Your task to perform on an android device: open chrome privacy settings Image 0: 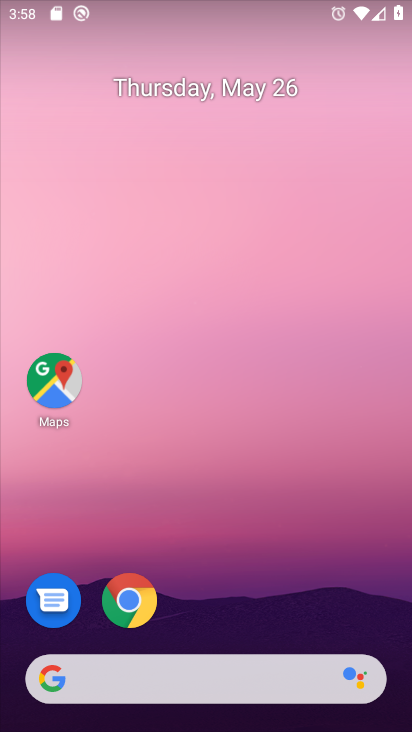
Step 0: click (134, 606)
Your task to perform on an android device: open chrome privacy settings Image 1: 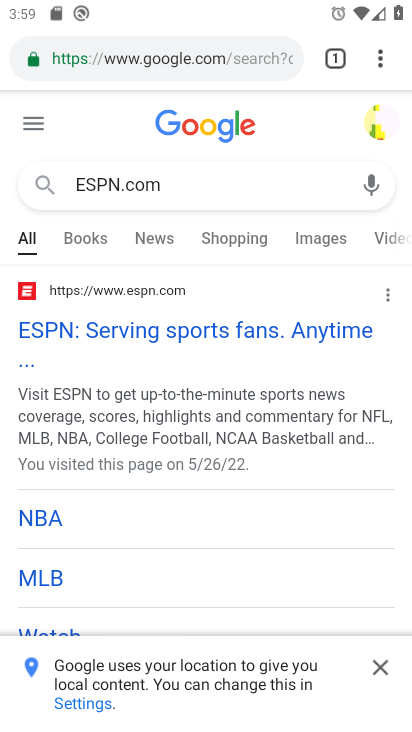
Step 1: click (380, 51)
Your task to perform on an android device: open chrome privacy settings Image 2: 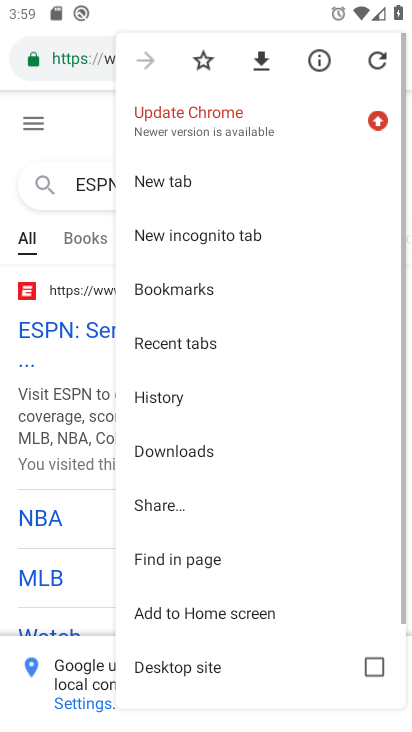
Step 2: drag from (177, 623) to (197, 411)
Your task to perform on an android device: open chrome privacy settings Image 3: 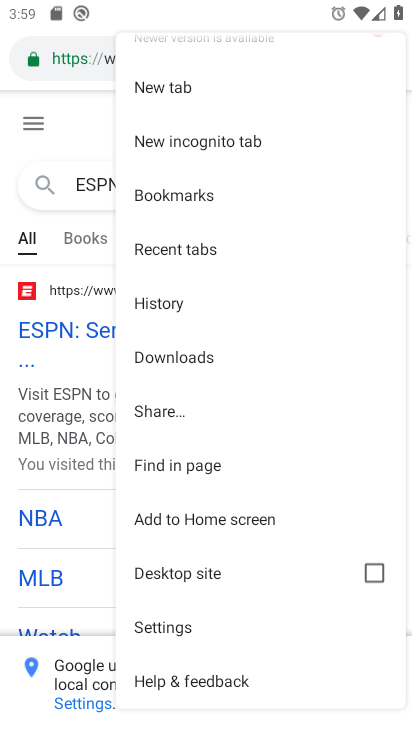
Step 3: click (167, 634)
Your task to perform on an android device: open chrome privacy settings Image 4: 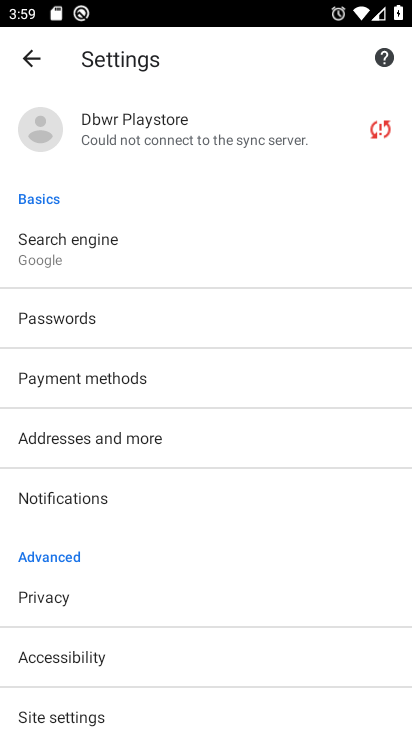
Step 4: drag from (136, 536) to (163, 298)
Your task to perform on an android device: open chrome privacy settings Image 5: 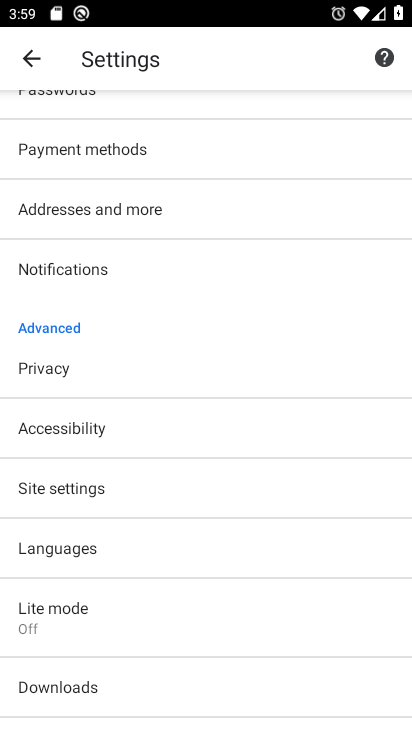
Step 5: click (42, 559)
Your task to perform on an android device: open chrome privacy settings Image 6: 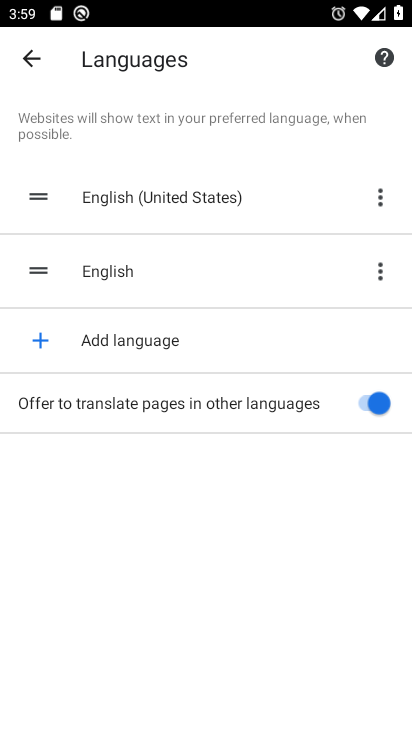
Step 6: click (26, 51)
Your task to perform on an android device: open chrome privacy settings Image 7: 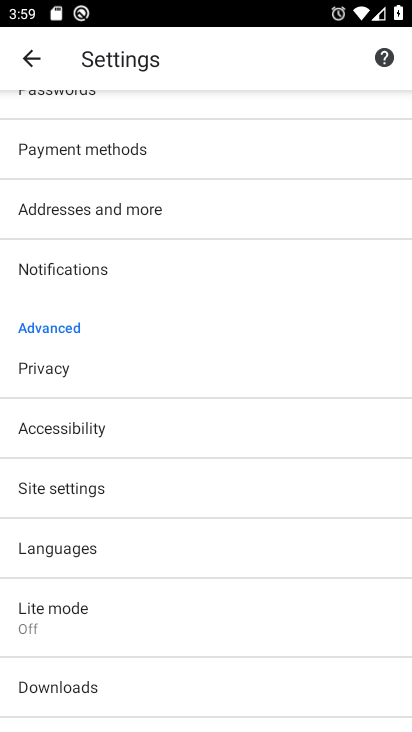
Step 7: click (82, 364)
Your task to perform on an android device: open chrome privacy settings Image 8: 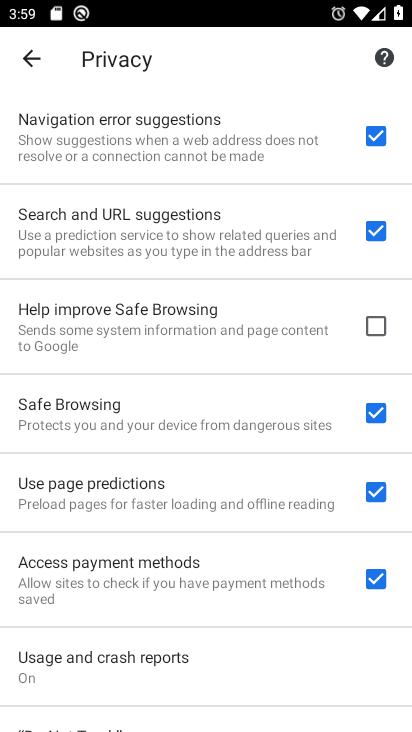
Step 8: task complete